Your task to perform on an android device: Toggle the flashlight Image 0: 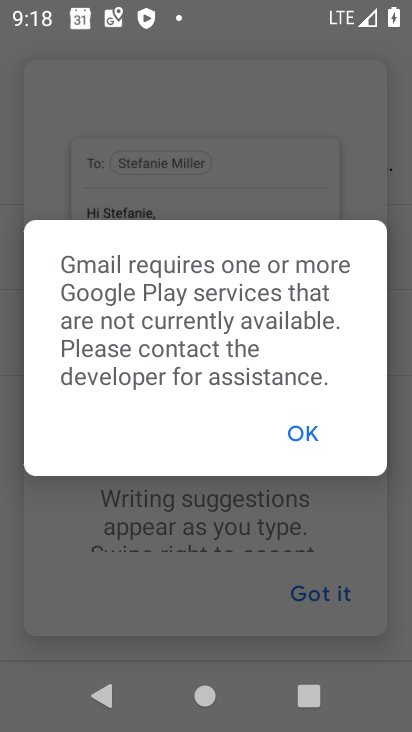
Step 0: press home button
Your task to perform on an android device: Toggle the flashlight Image 1: 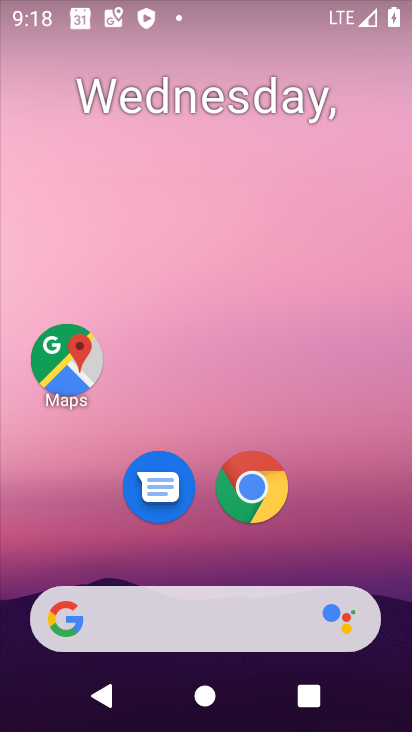
Step 1: drag from (247, 648) to (290, 232)
Your task to perform on an android device: Toggle the flashlight Image 2: 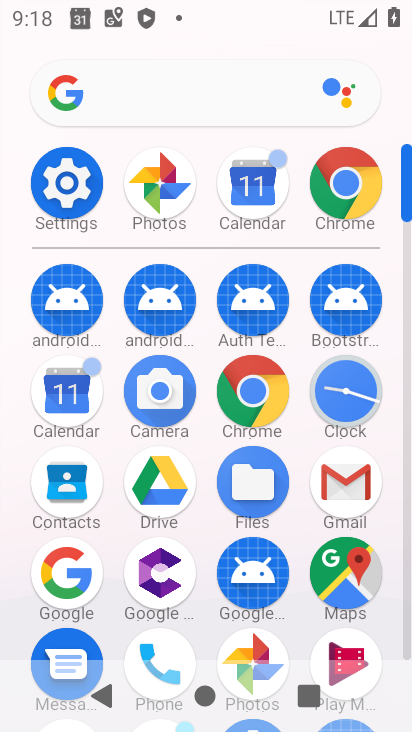
Step 2: click (44, 174)
Your task to perform on an android device: Toggle the flashlight Image 3: 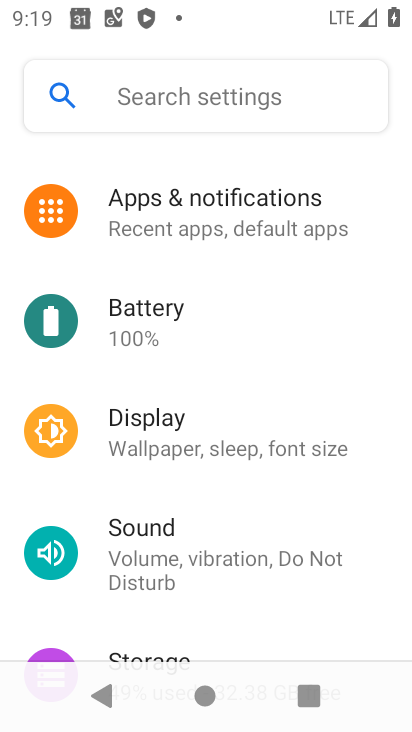
Step 3: click (189, 98)
Your task to perform on an android device: Toggle the flashlight Image 4: 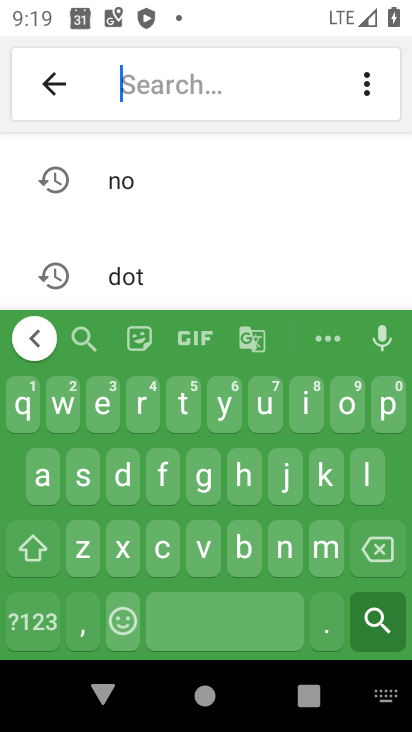
Step 4: click (169, 472)
Your task to perform on an android device: Toggle the flashlight Image 5: 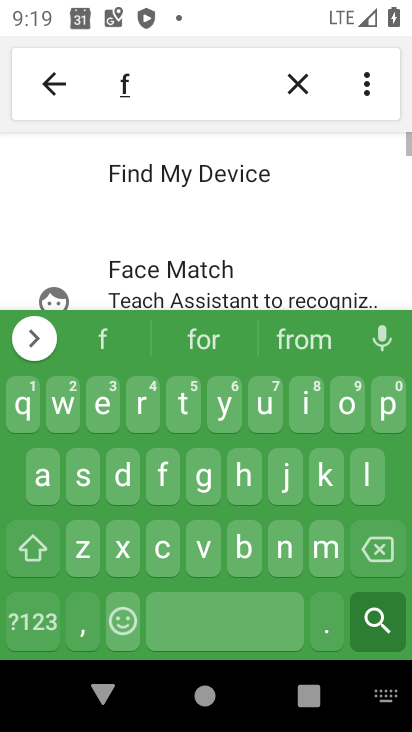
Step 5: click (373, 479)
Your task to perform on an android device: Toggle the flashlight Image 6: 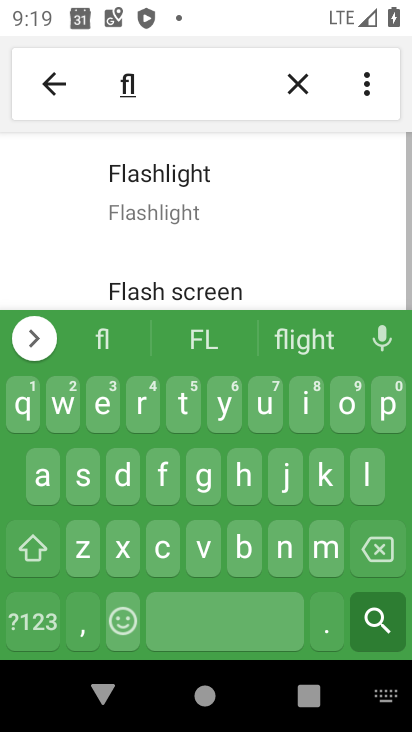
Step 6: click (174, 184)
Your task to perform on an android device: Toggle the flashlight Image 7: 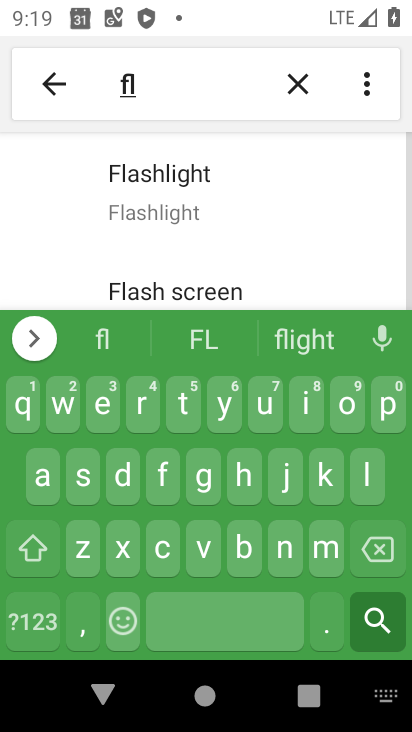
Step 7: task complete